Your task to perform on an android device: Turn on the flashlight Image 0: 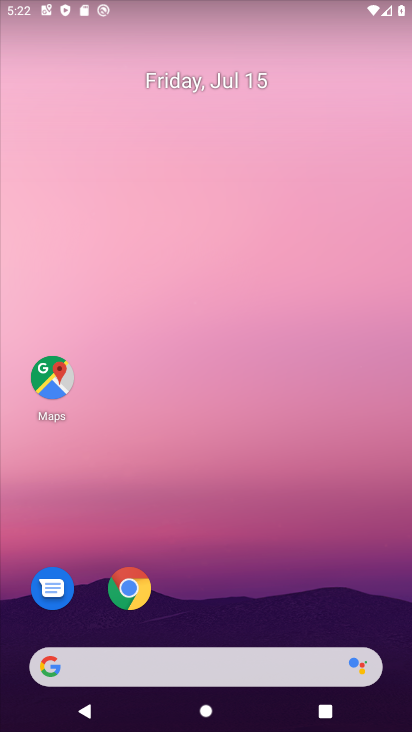
Step 0: drag from (205, 7) to (190, 663)
Your task to perform on an android device: Turn on the flashlight Image 1: 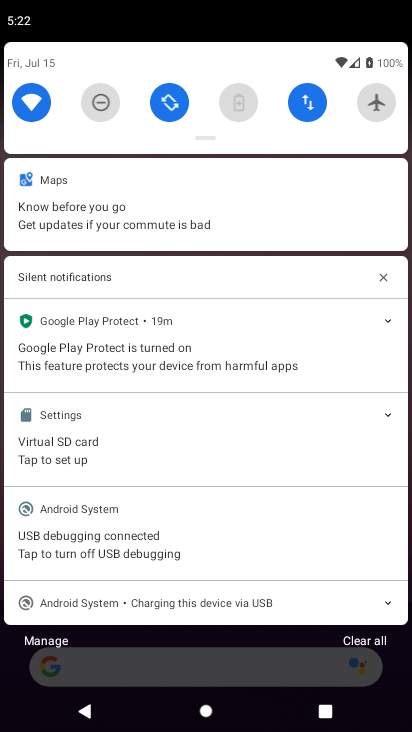
Step 1: task complete